Your task to perform on an android device: Go to display settings Image 0: 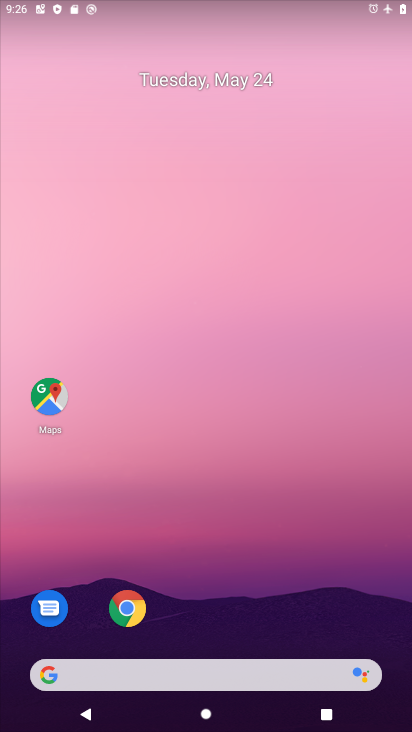
Step 0: drag from (215, 633) to (278, 80)
Your task to perform on an android device: Go to display settings Image 1: 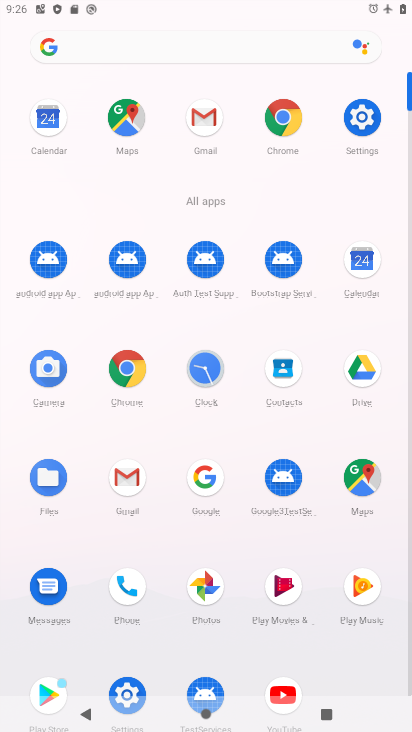
Step 1: drag from (148, 658) to (169, 506)
Your task to perform on an android device: Go to display settings Image 2: 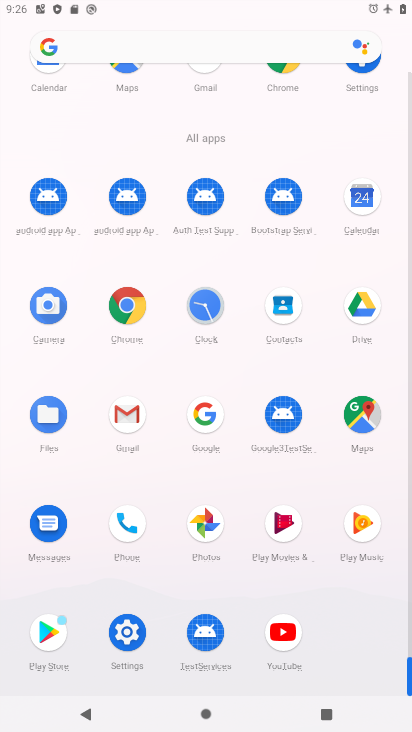
Step 2: click (121, 632)
Your task to perform on an android device: Go to display settings Image 3: 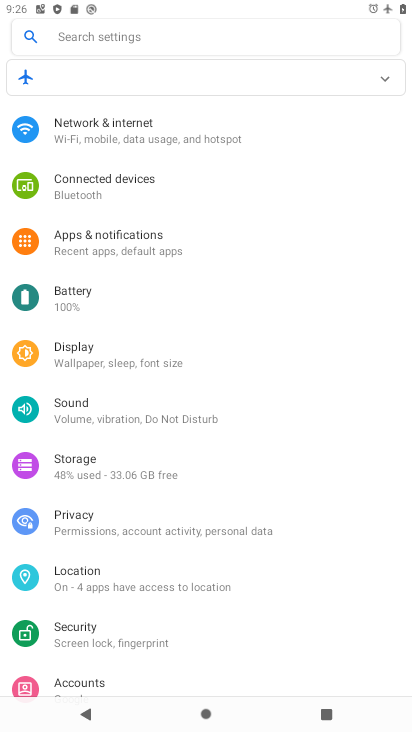
Step 3: click (120, 362)
Your task to perform on an android device: Go to display settings Image 4: 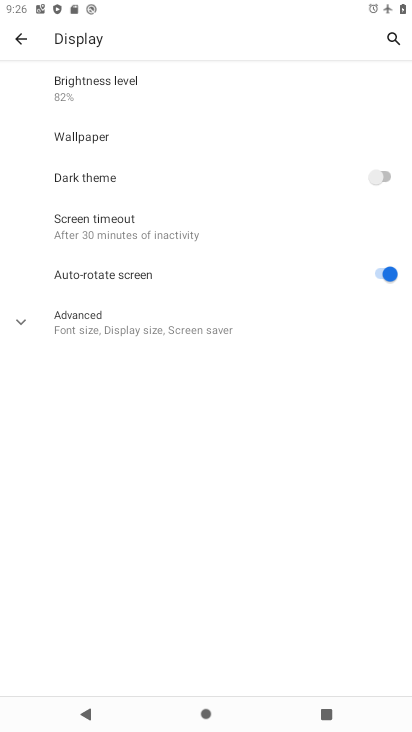
Step 4: task complete